Your task to perform on an android device: toggle data saver in the chrome app Image 0: 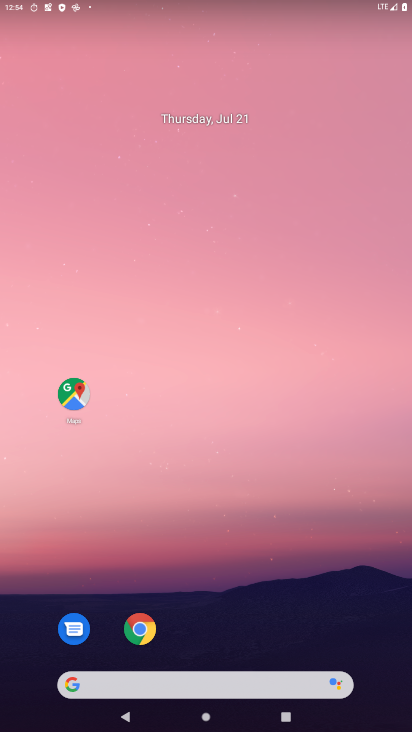
Step 0: drag from (303, 703) to (297, 126)
Your task to perform on an android device: toggle data saver in the chrome app Image 1: 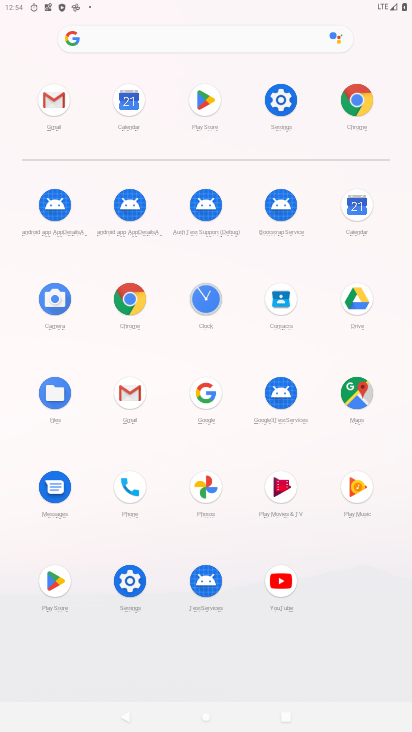
Step 1: click (139, 300)
Your task to perform on an android device: toggle data saver in the chrome app Image 2: 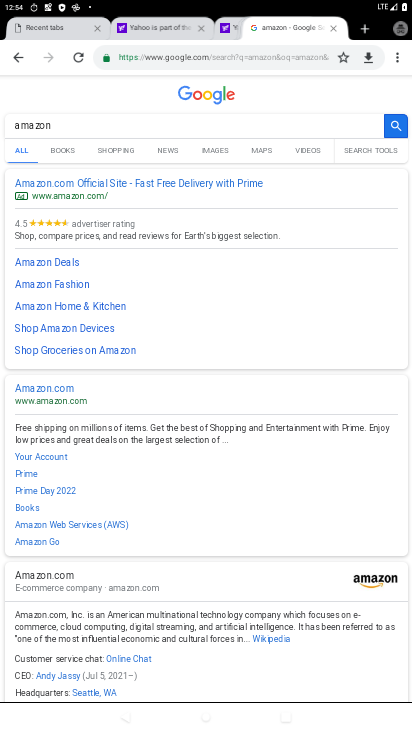
Step 2: click (393, 61)
Your task to perform on an android device: toggle data saver in the chrome app Image 3: 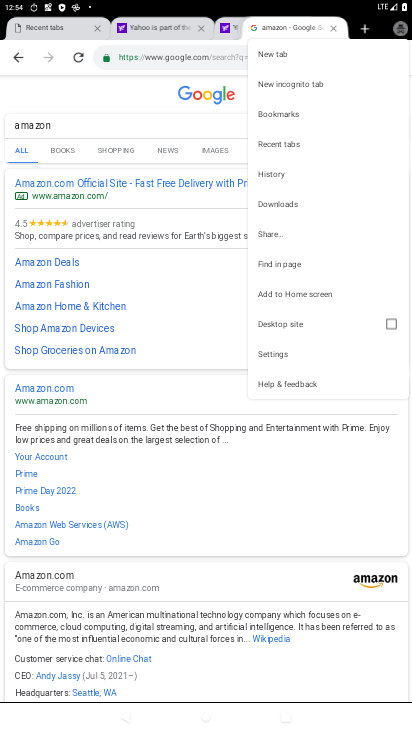
Step 3: click (292, 359)
Your task to perform on an android device: toggle data saver in the chrome app Image 4: 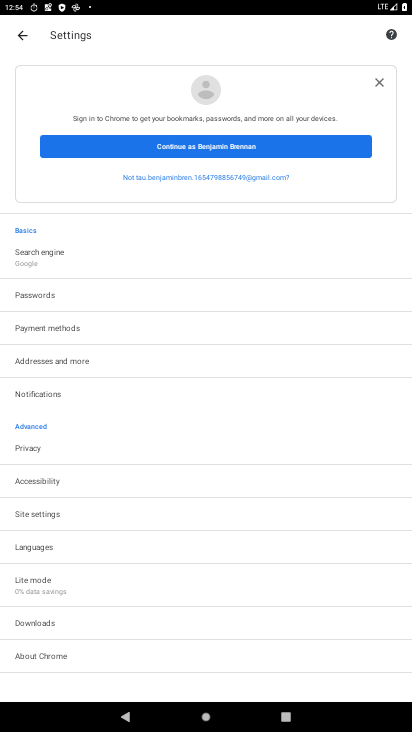
Step 4: click (88, 593)
Your task to perform on an android device: toggle data saver in the chrome app Image 5: 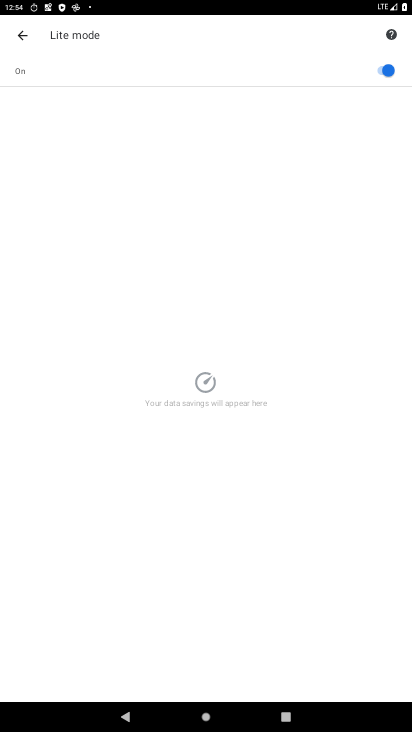
Step 5: click (381, 71)
Your task to perform on an android device: toggle data saver in the chrome app Image 6: 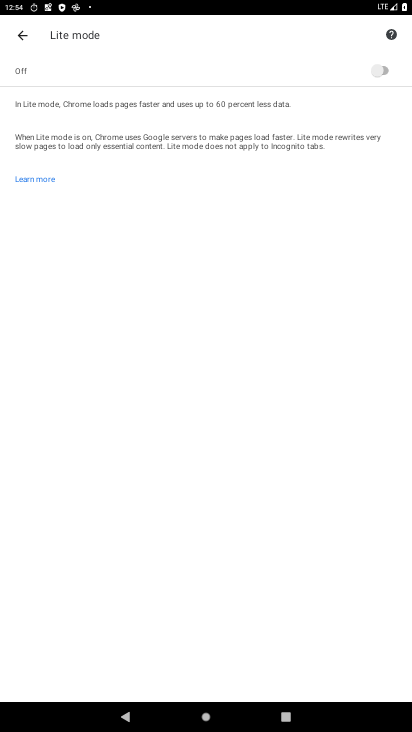
Step 6: task complete